Your task to perform on an android device: turn on showing notifications on the lock screen Image 0: 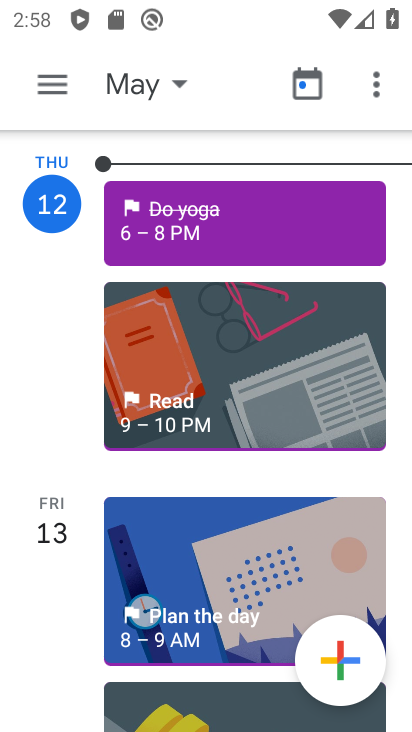
Step 0: press home button
Your task to perform on an android device: turn on showing notifications on the lock screen Image 1: 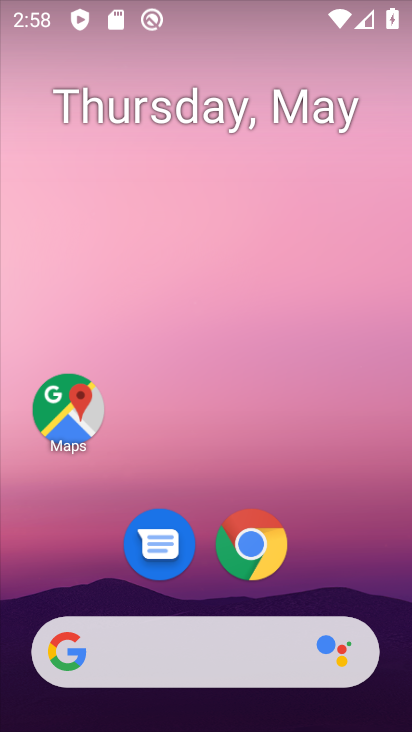
Step 1: drag from (169, 616) to (292, 108)
Your task to perform on an android device: turn on showing notifications on the lock screen Image 2: 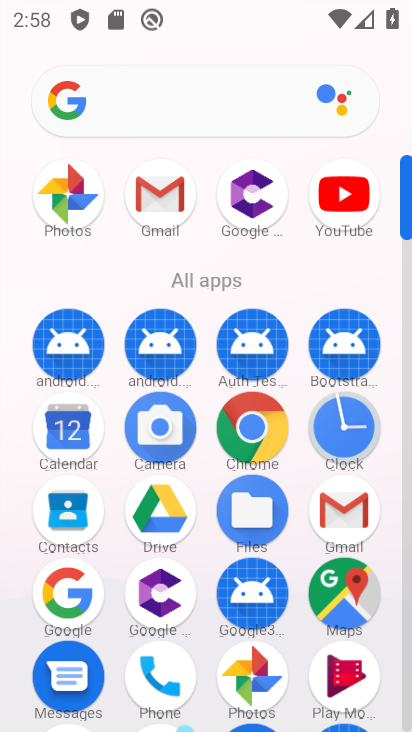
Step 2: drag from (149, 618) to (223, 380)
Your task to perform on an android device: turn on showing notifications on the lock screen Image 3: 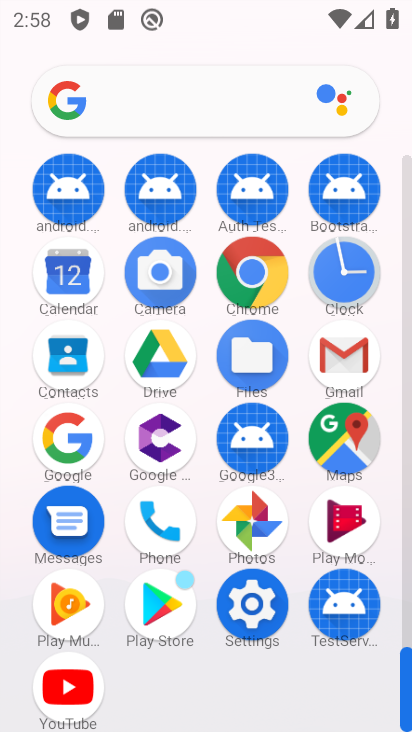
Step 3: click (260, 620)
Your task to perform on an android device: turn on showing notifications on the lock screen Image 4: 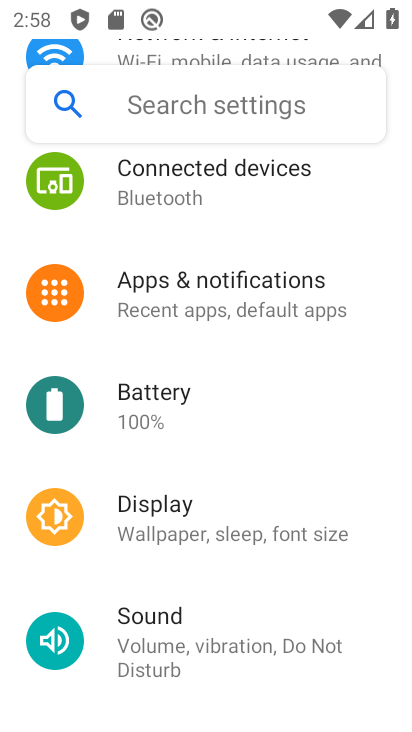
Step 4: drag from (162, 636) to (191, 513)
Your task to perform on an android device: turn on showing notifications on the lock screen Image 5: 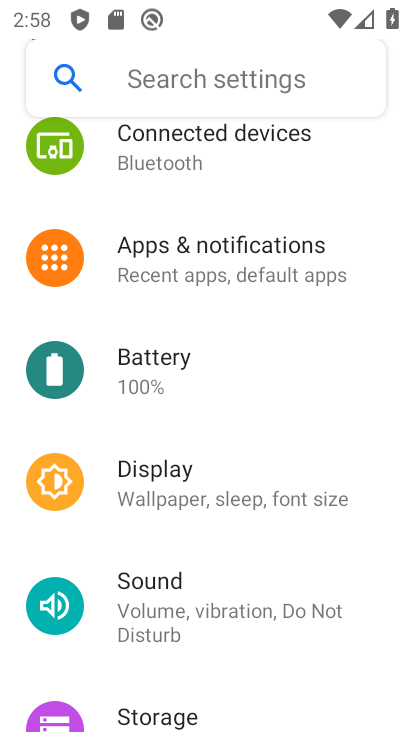
Step 5: click (267, 280)
Your task to perform on an android device: turn on showing notifications on the lock screen Image 6: 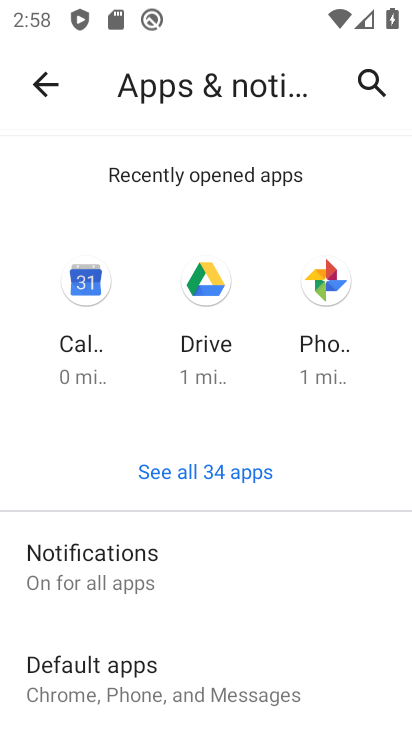
Step 6: drag from (283, 661) to (349, 356)
Your task to perform on an android device: turn on showing notifications on the lock screen Image 7: 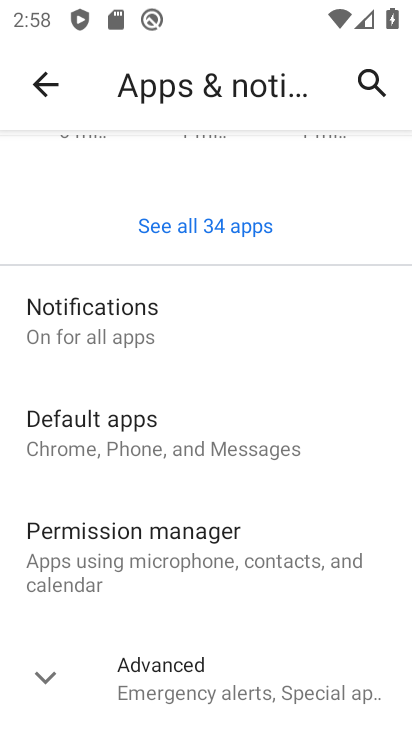
Step 7: click (202, 337)
Your task to perform on an android device: turn on showing notifications on the lock screen Image 8: 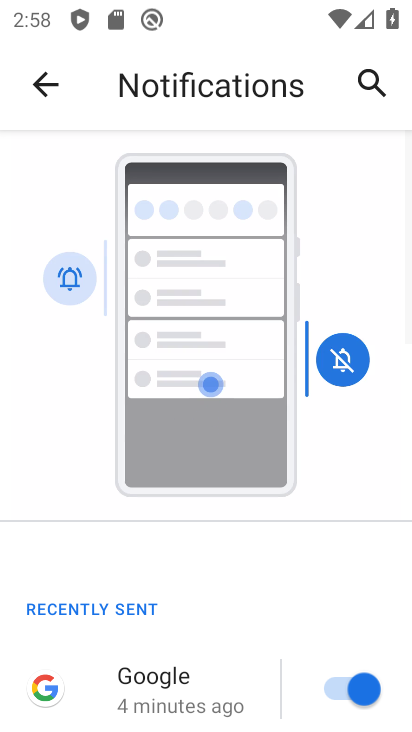
Step 8: drag from (189, 623) to (290, 212)
Your task to perform on an android device: turn on showing notifications on the lock screen Image 9: 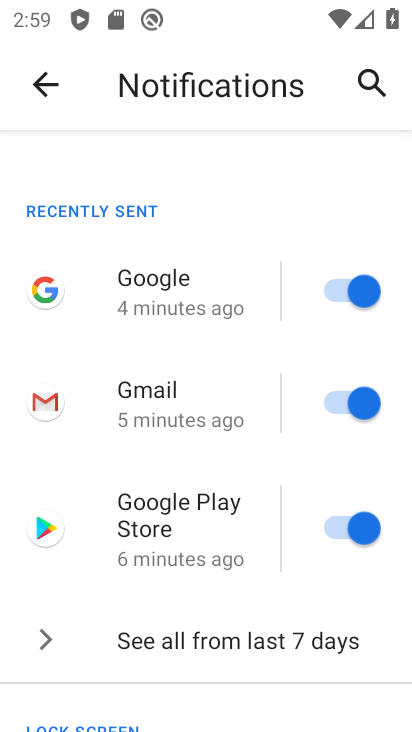
Step 9: drag from (183, 655) to (269, 304)
Your task to perform on an android device: turn on showing notifications on the lock screen Image 10: 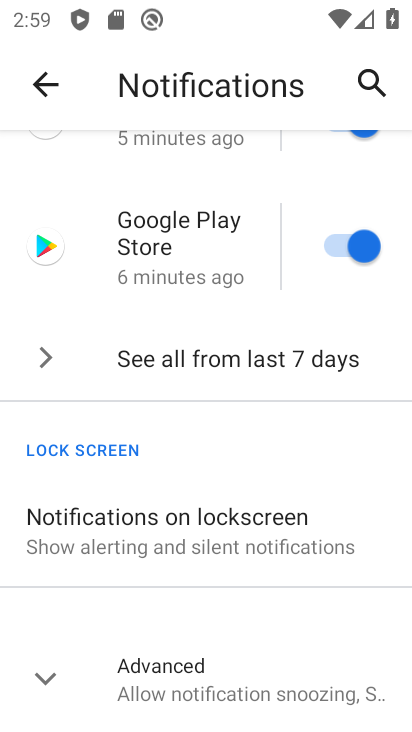
Step 10: click (254, 519)
Your task to perform on an android device: turn on showing notifications on the lock screen Image 11: 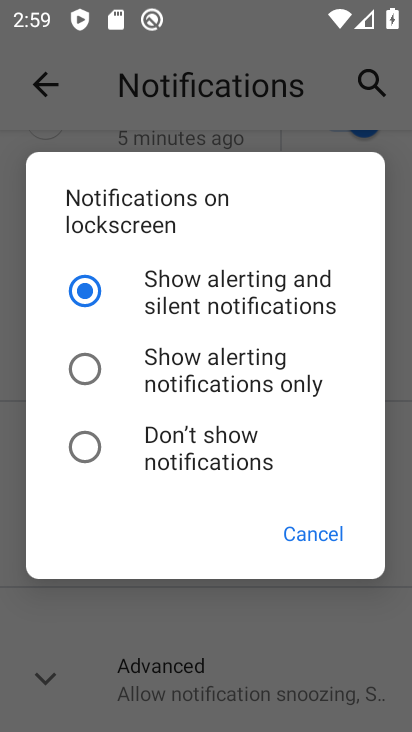
Step 11: task complete